Your task to perform on an android device: uninstall "McDonald's" Image 0: 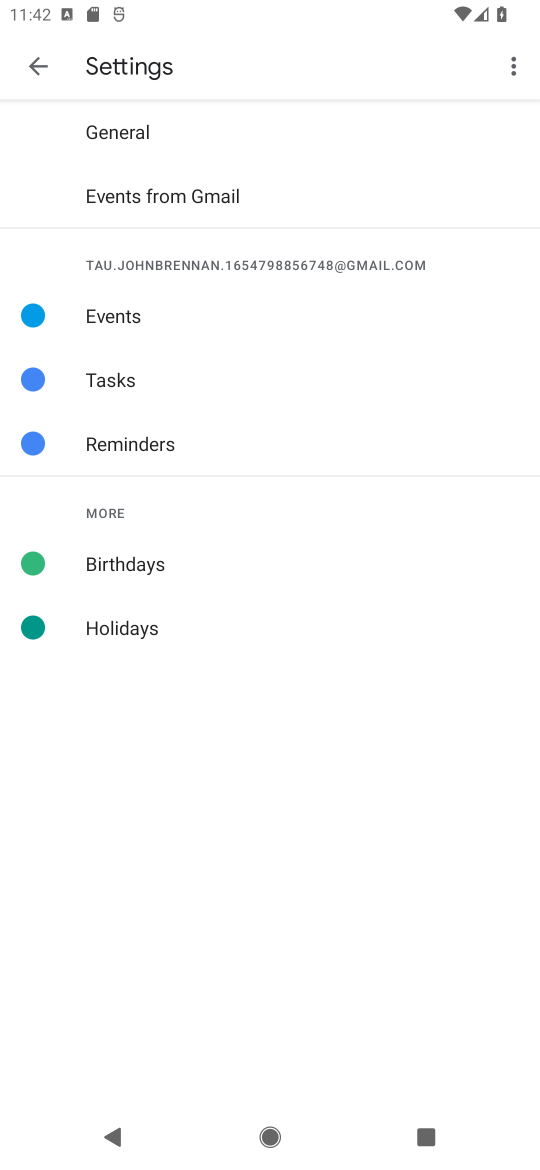
Step 0: press home button
Your task to perform on an android device: uninstall "McDonald's" Image 1: 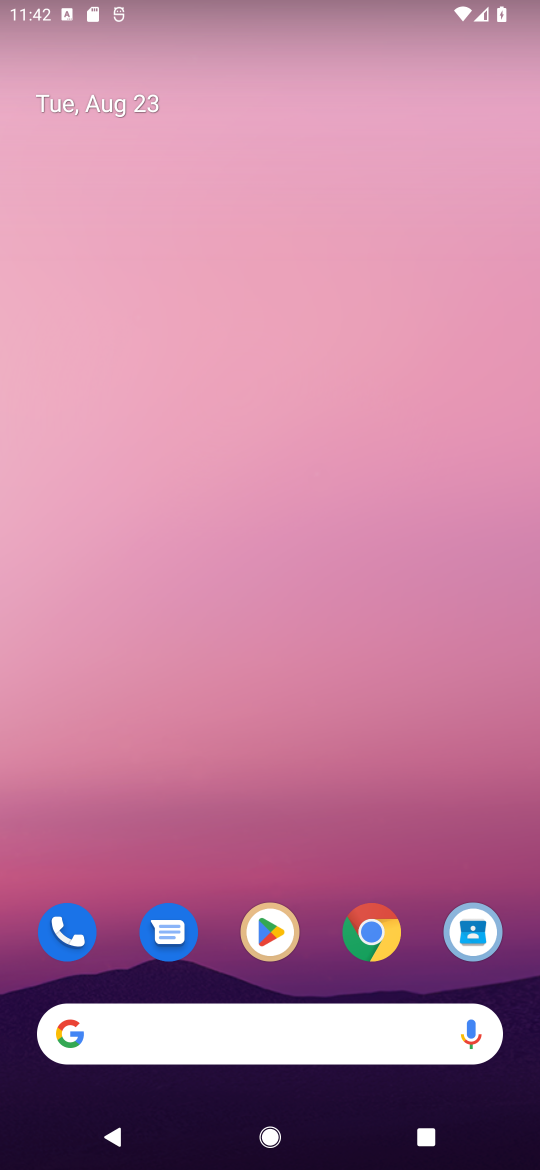
Step 1: click (261, 939)
Your task to perform on an android device: uninstall "McDonald's" Image 2: 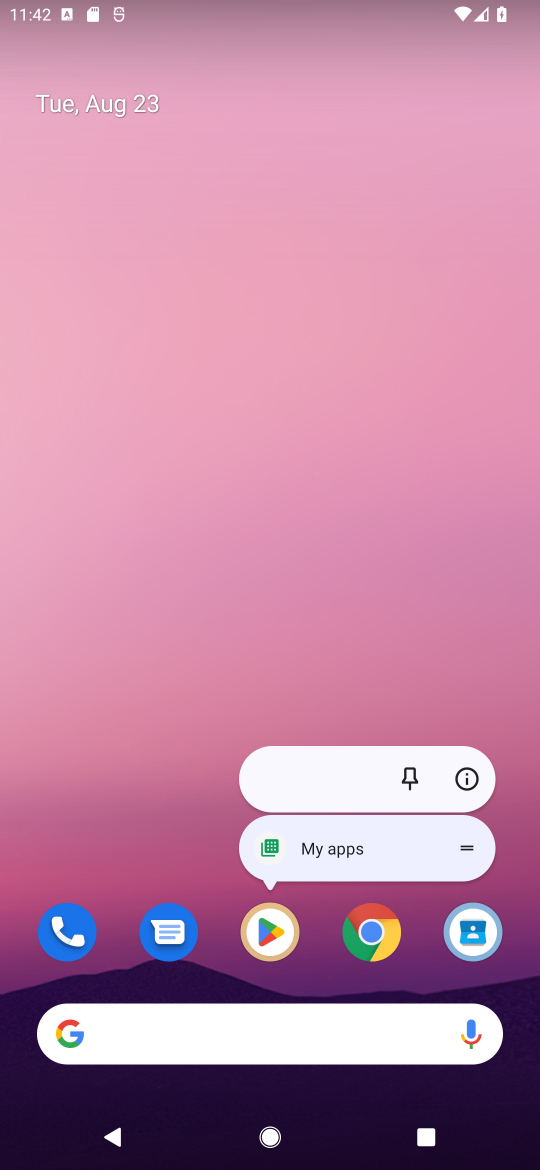
Step 2: click (274, 934)
Your task to perform on an android device: uninstall "McDonald's" Image 3: 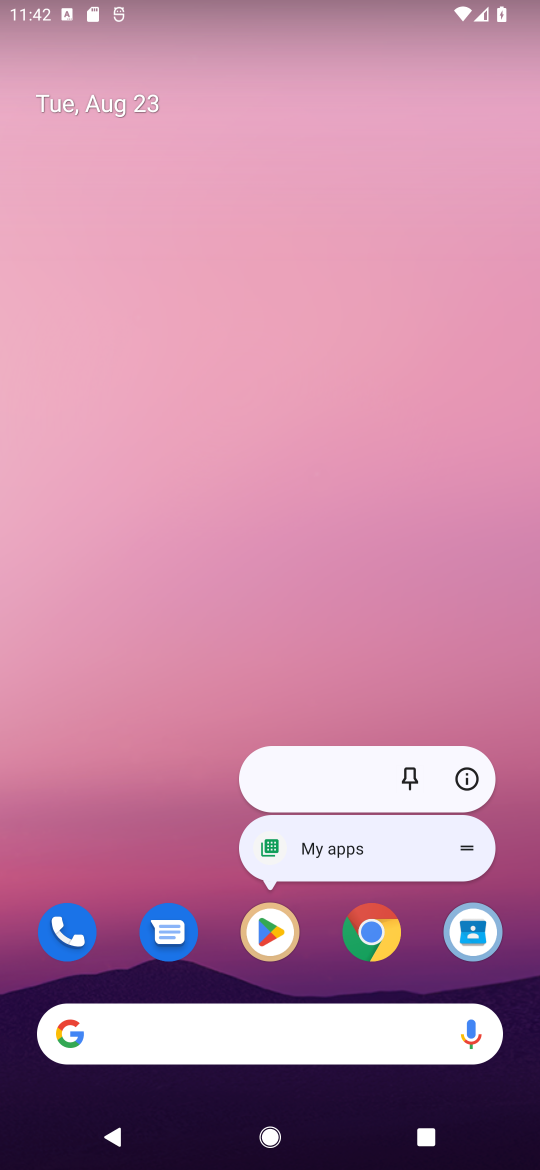
Step 3: click (288, 927)
Your task to perform on an android device: uninstall "McDonald's" Image 4: 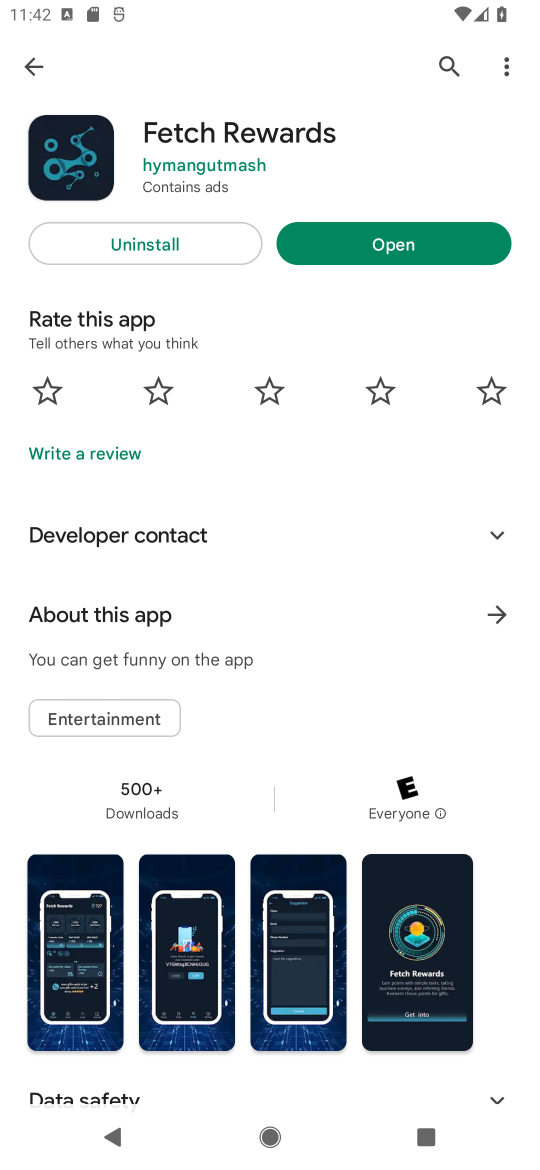
Step 4: click (449, 60)
Your task to perform on an android device: uninstall "McDonald's" Image 5: 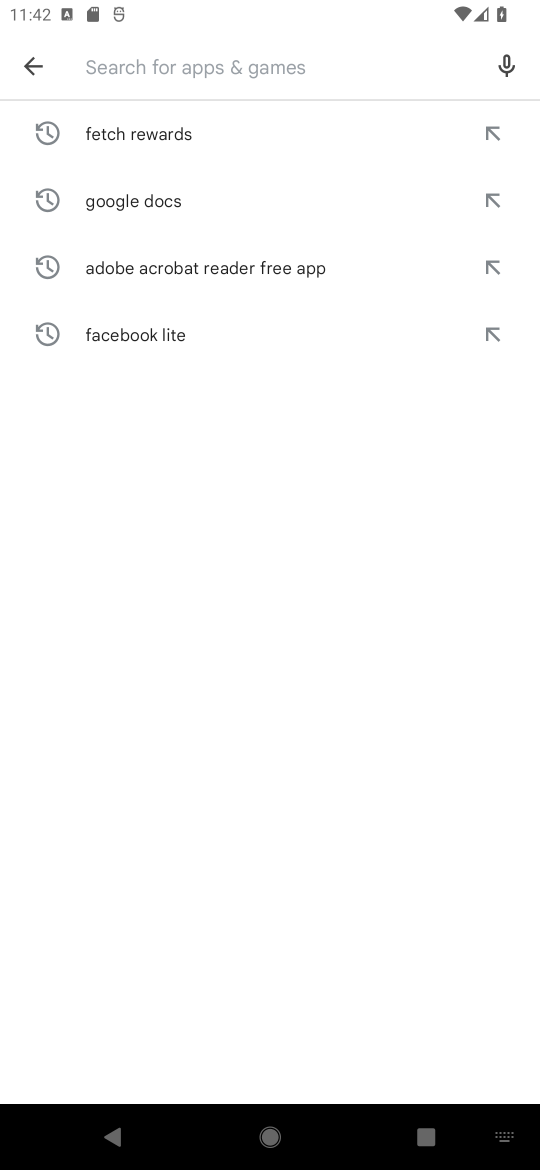
Step 5: click (94, 71)
Your task to perform on an android device: uninstall "McDonald's" Image 6: 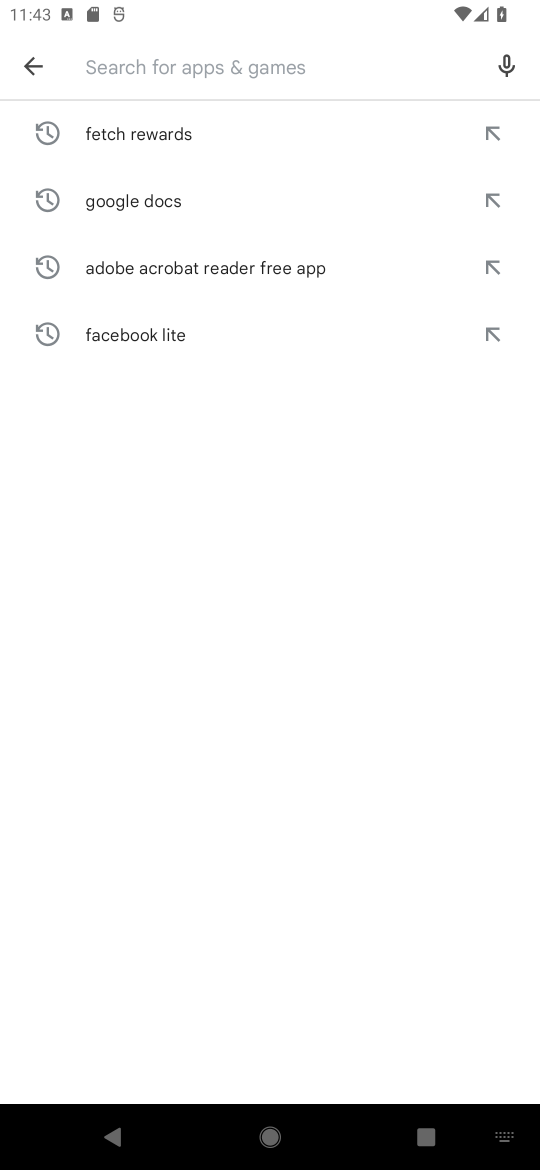
Step 6: type "McDonald's"
Your task to perform on an android device: uninstall "McDonald's" Image 7: 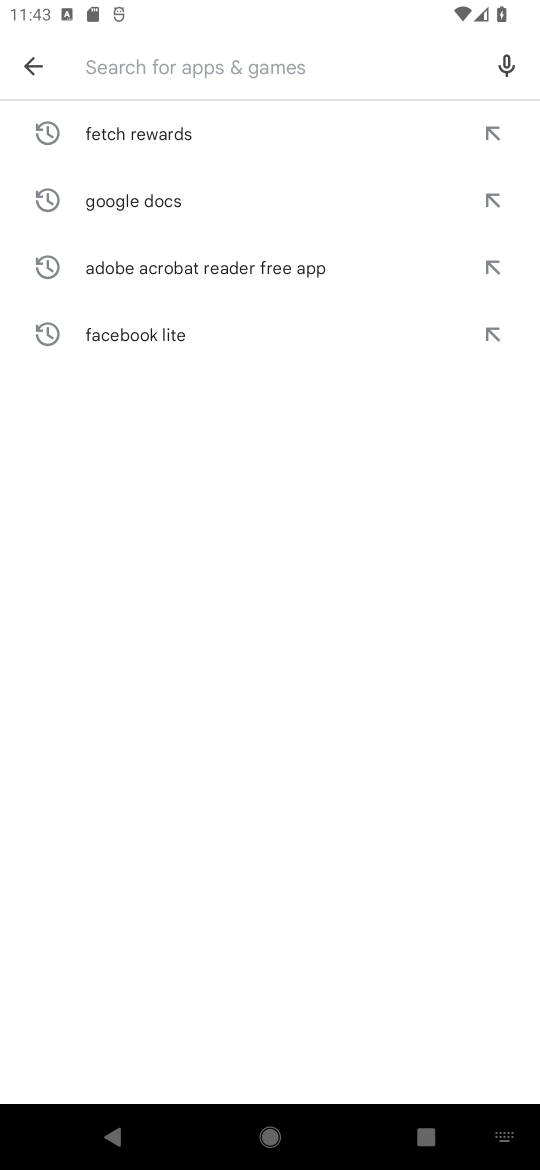
Step 7: click (335, 677)
Your task to perform on an android device: uninstall "McDonald's" Image 8: 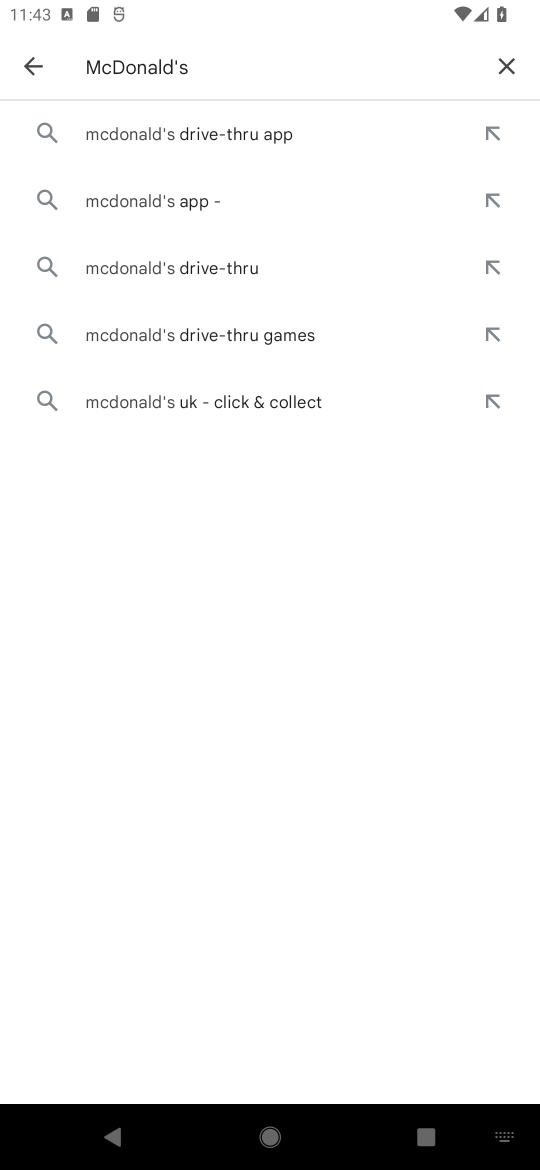
Step 8: click (127, 219)
Your task to perform on an android device: uninstall "McDonald's" Image 9: 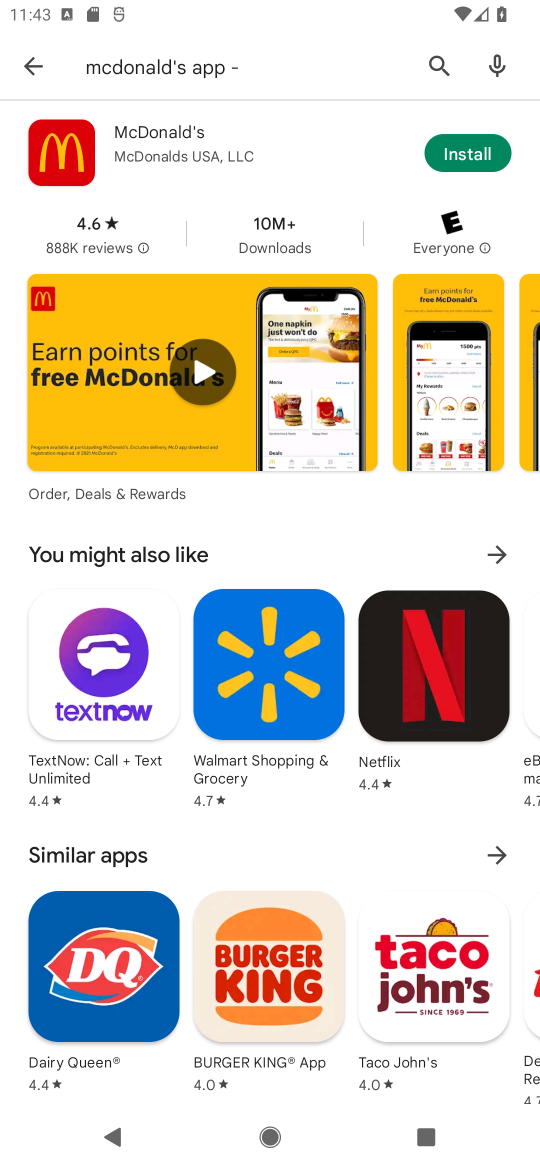
Step 9: click (218, 135)
Your task to perform on an android device: uninstall "McDonald's" Image 10: 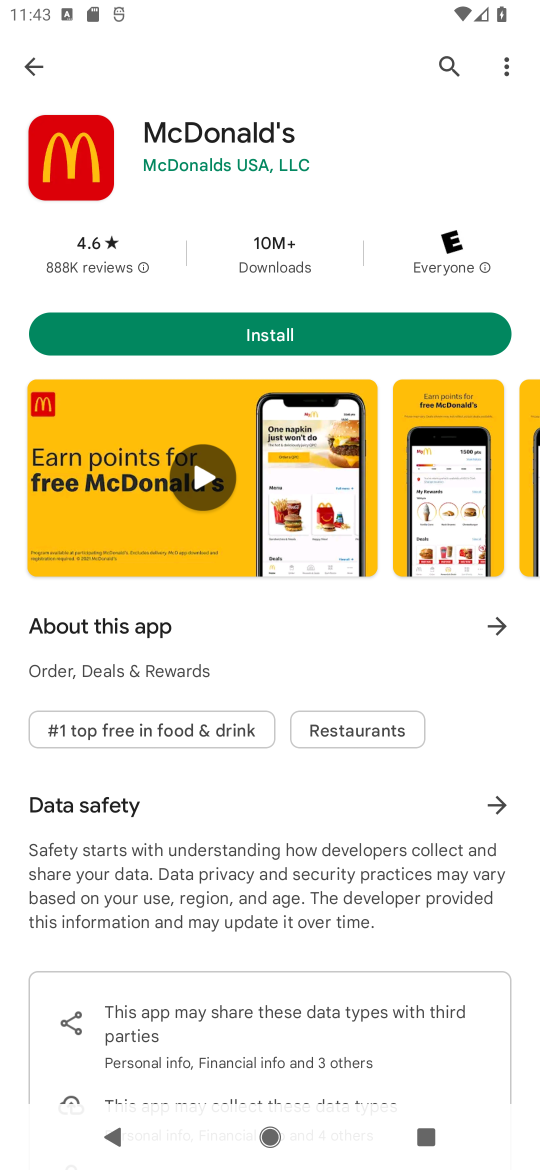
Step 10: task complete